Your task to perform on an android device: Open Google Maps and go to "Timeline" Image 0: 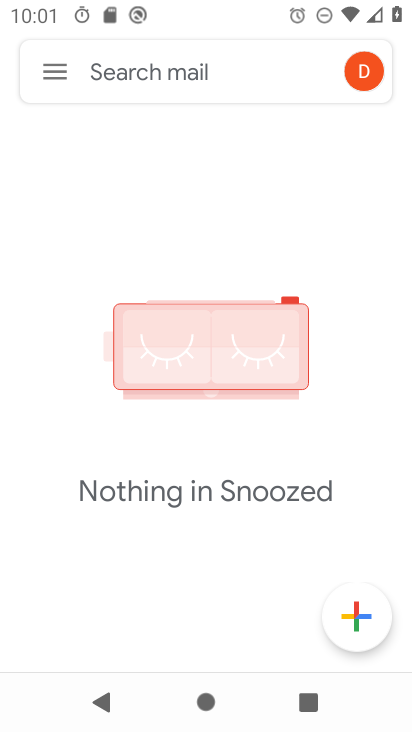
Step 0: press home button
Your task to perform on an android device: Open Google Maps and go to "Timeline" Image 1: 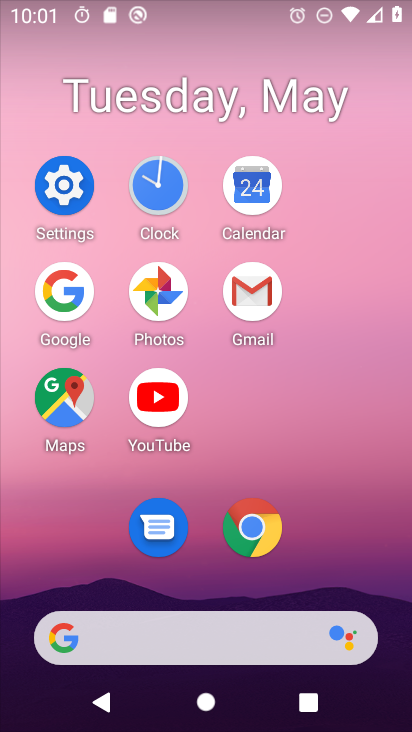
Step 1: click (81, 390)
Your task to perform on an android device: Open Google Maps and go to "Timeline" Image 2: 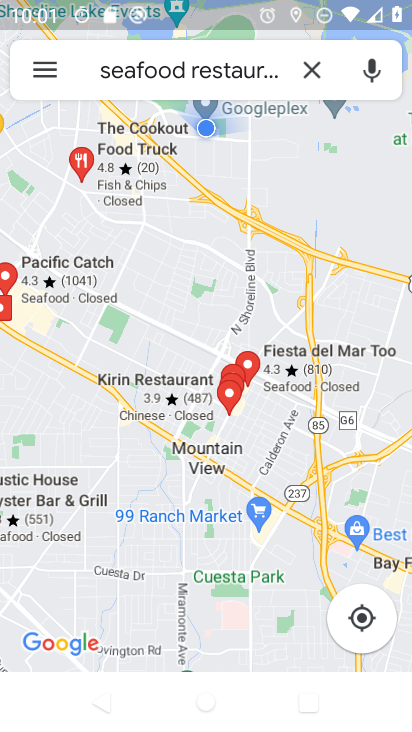
Step 2: click (53, 69)
Your task to perform on an android device: Open Google Maps and go to "Timeline" Image 3: 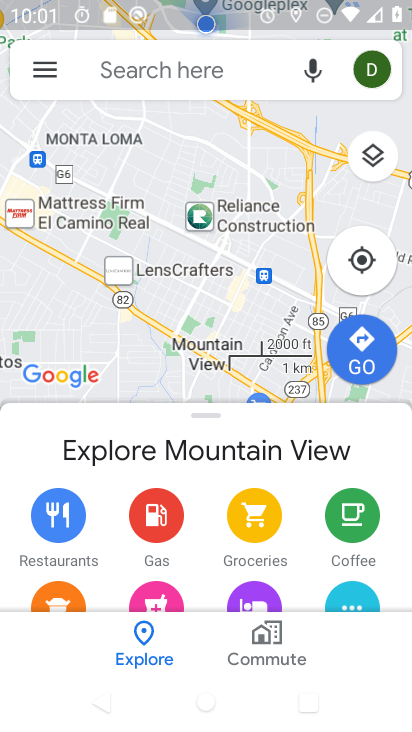
Step 3: click (35, 71)
Your task to perform on an android device: Open Google Maps and go to "Timeline" Image 4: 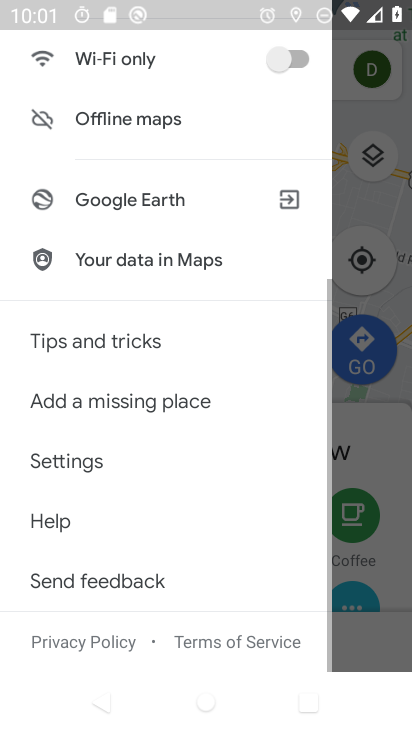
Step 4: drag from (143, 137) to (167, 536)
Your task to perform on an android device: Open Google Maps and go to "Timeline" Image 5: 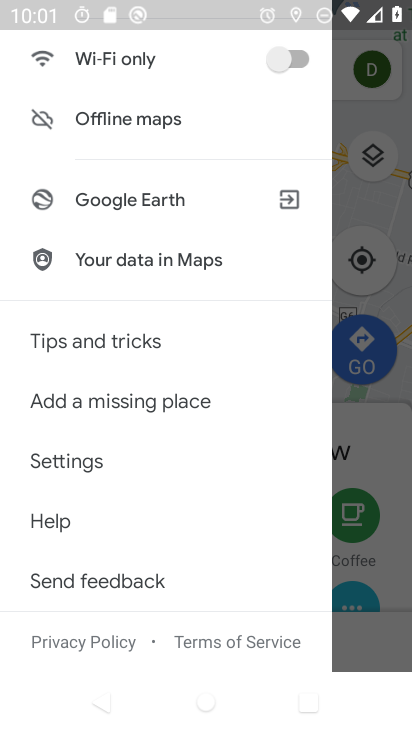
Step 5: drag from (197, 111) to (193, 424)
Your task to perform on an android device: Open Google Maps and go to "Timeline" Image 6: 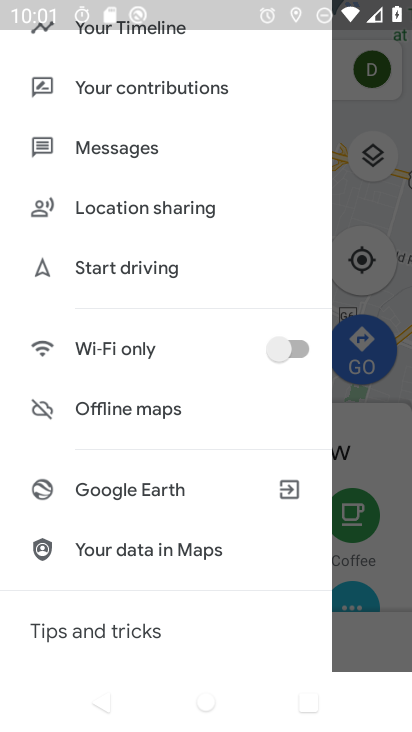
Step 6: drag from (221, 133) to (220, 487)
Your task to perform on an android device: Open Google Maps and go to "Timeline" Image 7: 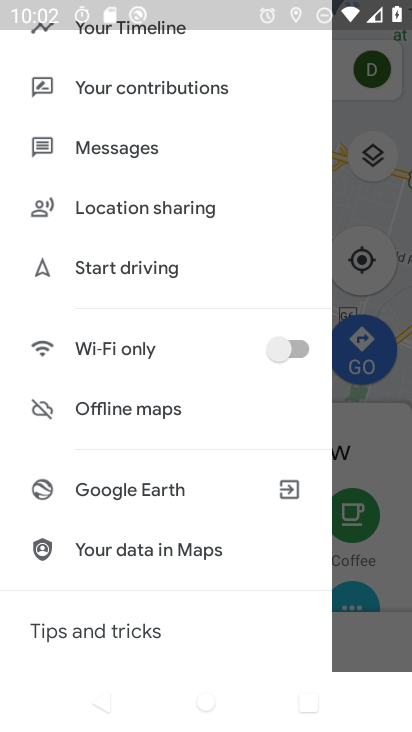
Step 7: drag from (232, 164) to (195, 501)
Your task to perform on an android device: Open Google Maps and go to "Timeline" Image 8: 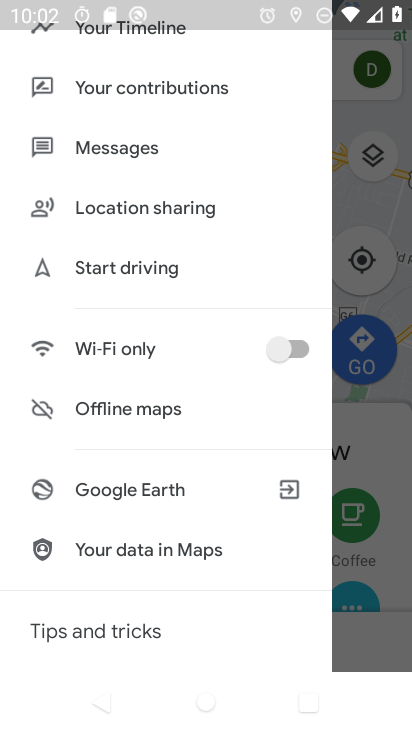
Step 8: drag from (114, 114) to (109, 605)
Your task to perform on an android device: Open Google Maps and go to "Timeline" Image 9: 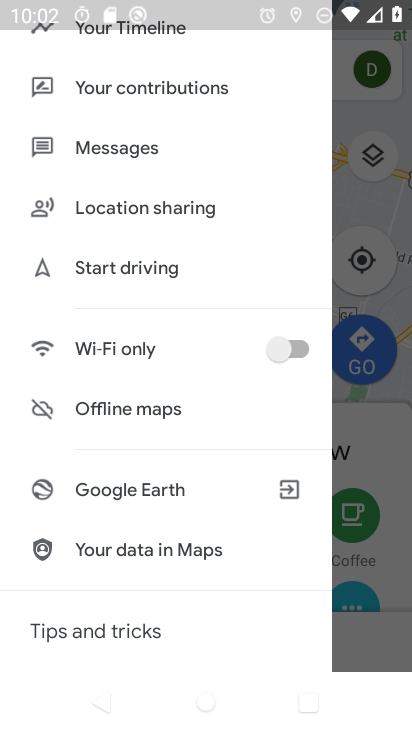
Step 9: click (151, 36)
Your task to perform on an android device: Open Google Maps and go to "Timeline" Image 10: 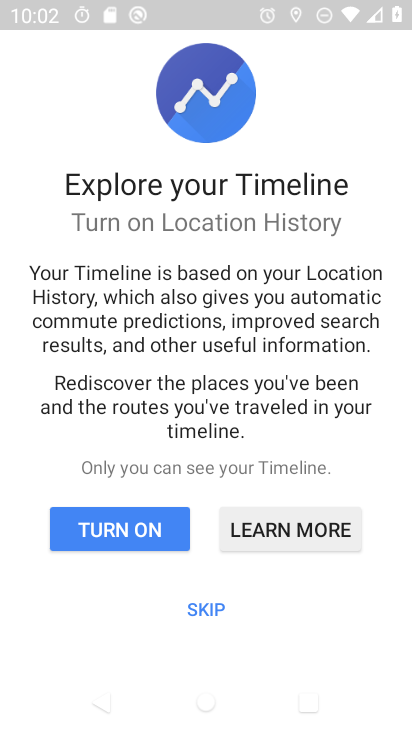
Step 10: click (83, 538)
Your task to perform on an android device: Open Google Maps and go to "Timeline" Image 11: 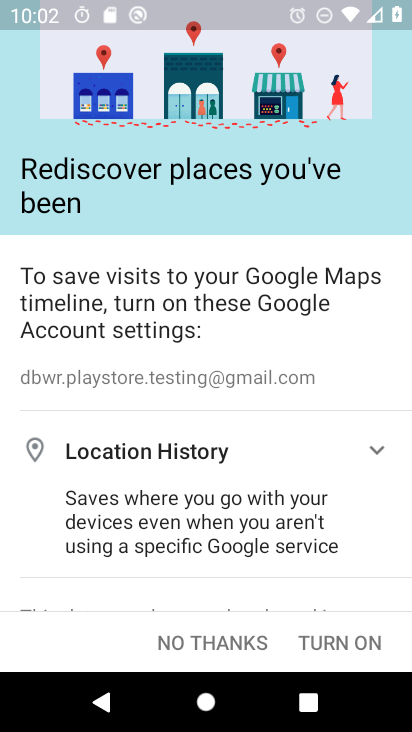
Step 11: click (323, 635)
Your task to perform on an android device: Open Google Maps and go to "Timeline" Image 12: 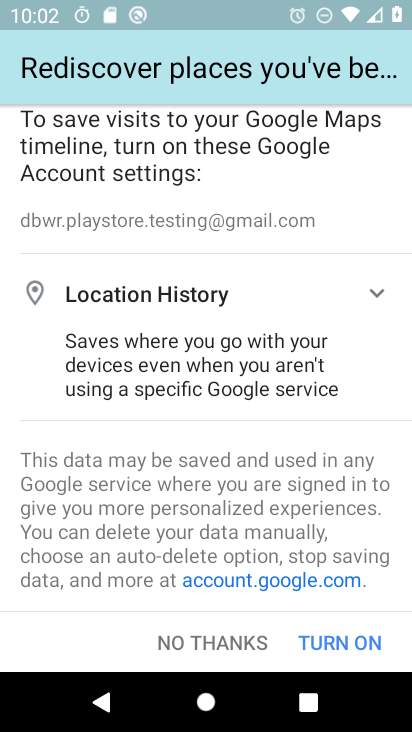
Step 12: click (349, 632)
Your task to perform on an android device: Open Google Maps and go to "Timeline" Image 13: 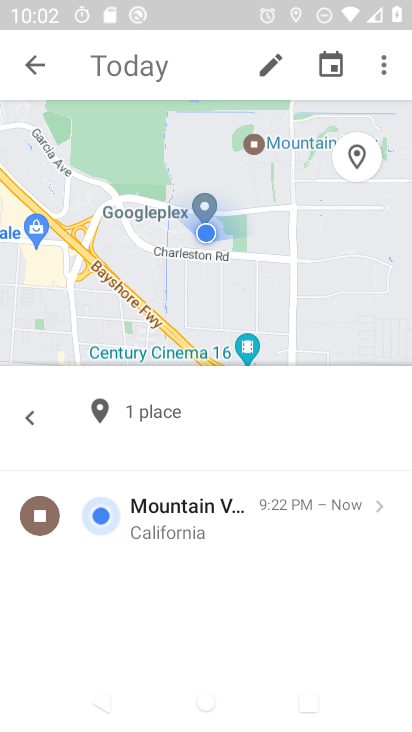
Step 13: task complete